Your task to perform on an android device: refresh tabs in the chrome app Image 0: 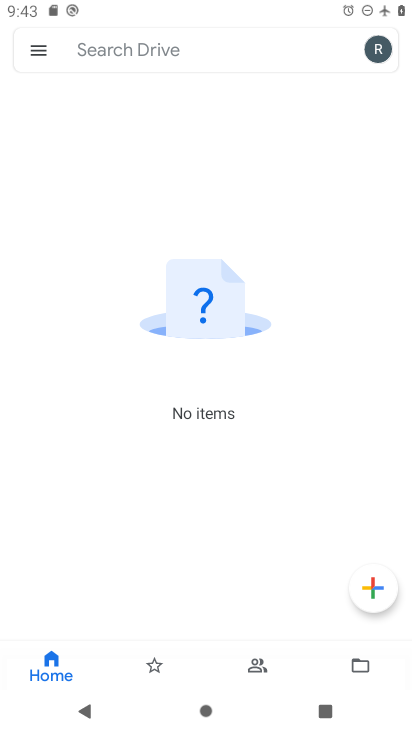
Step 0: press home button
Your task to perform on an android device: refresh tabs in the chrome app Image 1: 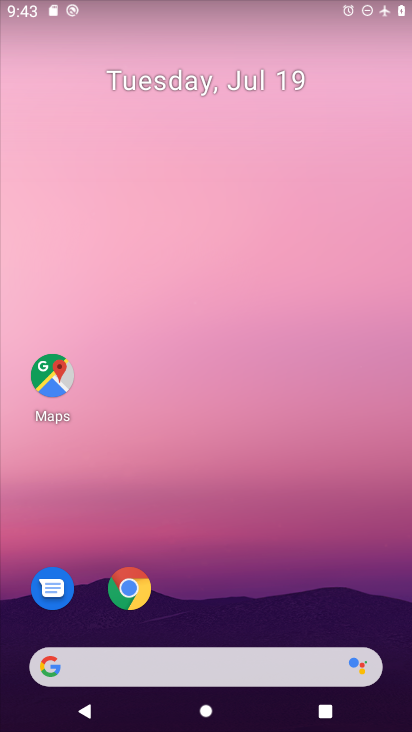
Step 1: drag from (305, 575) to (384, 109)
Your task to perform on an android device: refresh tabs in the chrome app Image 2: 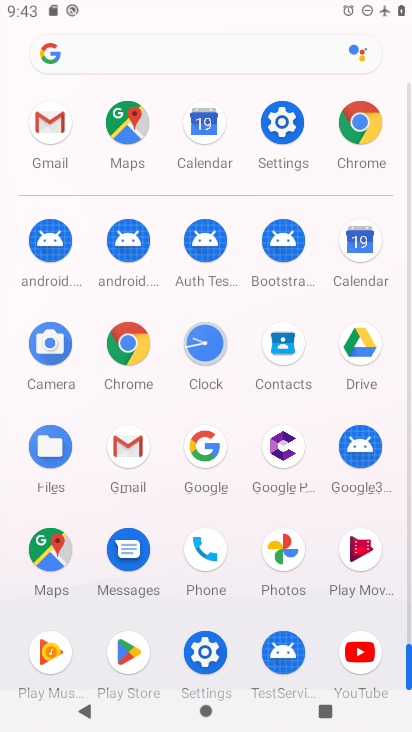
Step 2: click (144, 341)
Your task to perform on an android device: refresh tabs in the chrome app Image 3: 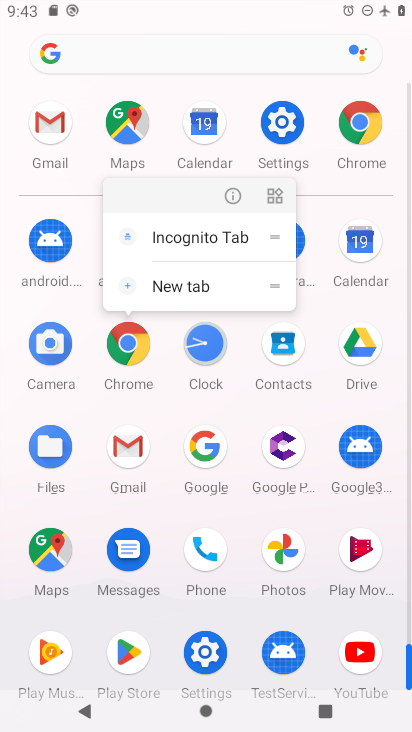
Step 3: click (117, 337)
Your task to perform on an android device: refresh tabs in the chrome app Image 4: 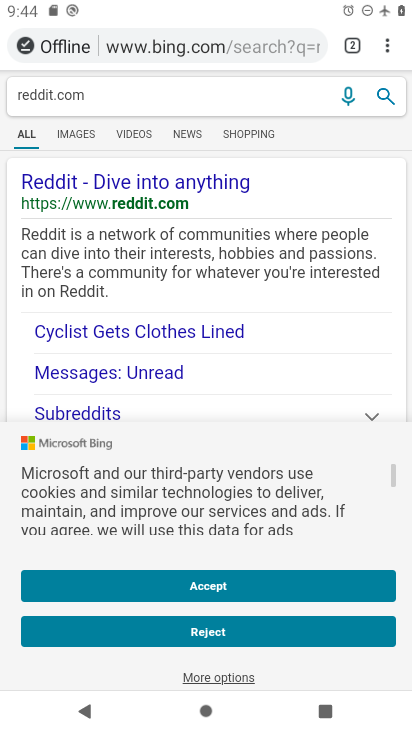
Step 4: task complete